Your task to perform on an android device: Is it going to rain today? Image 0: 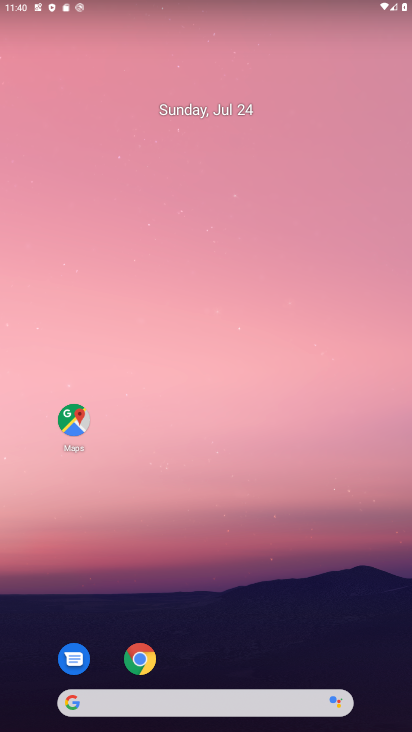
Step 0: click (107, 704)
Your task to perform on an android device: Is it going to rain today? Image 1: 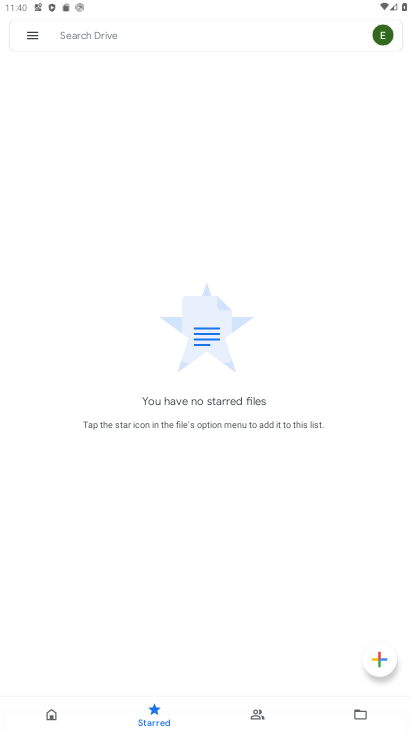
Step 1: press home button
Your task to perform on an android device: Is it going to rain today? Image 2: 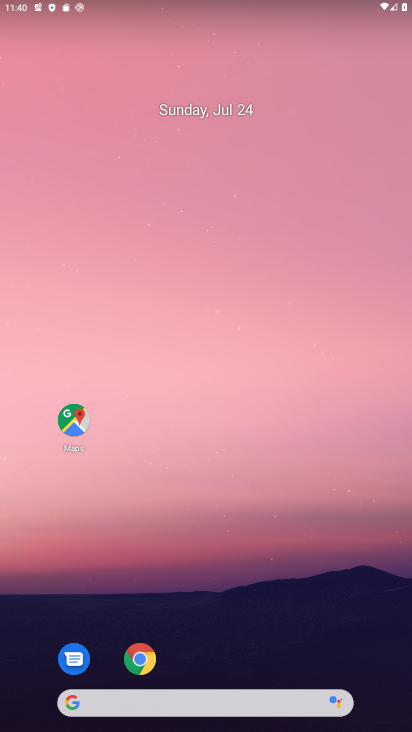
Step 2: click (138, 702)
Your task to perform on an android device: Is it going to rain today? Image 3: 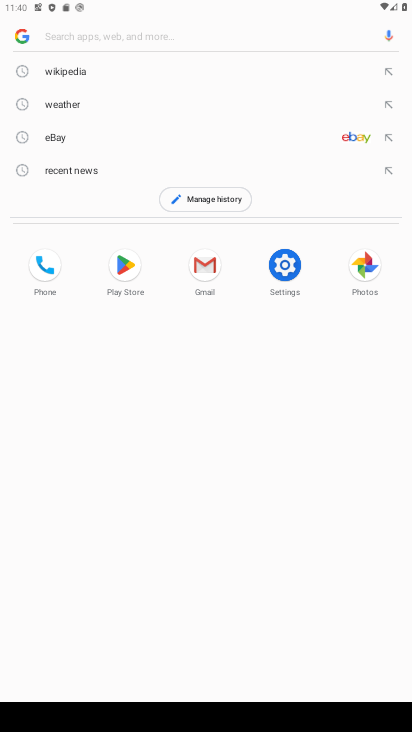
Step 3: type "Is it going to rain today?"
Your task to perform on an android device: Is it going to rain today? Image 4: 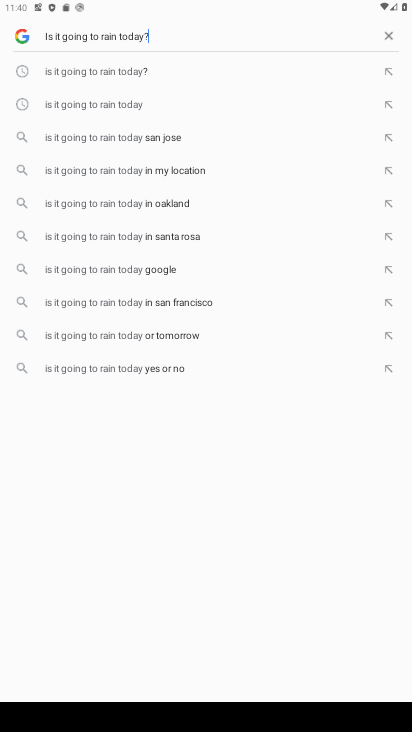
Step 4: type ""
Your task to perform on an android device: Is it going to rain today? Image 5: 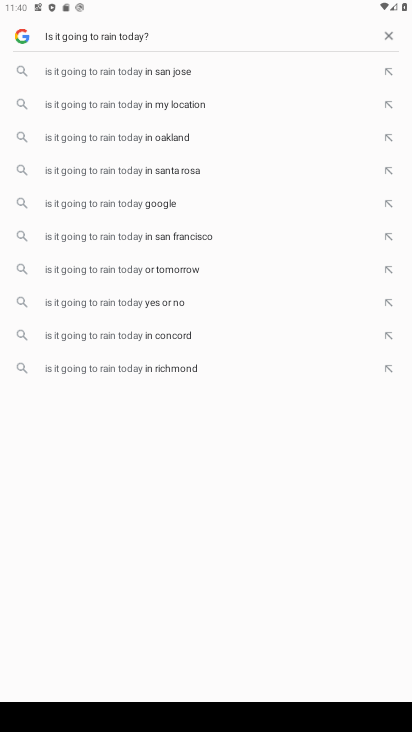
Step 5: type ""
Your task to perform on an android device: Is it going to rain today? Image 6: 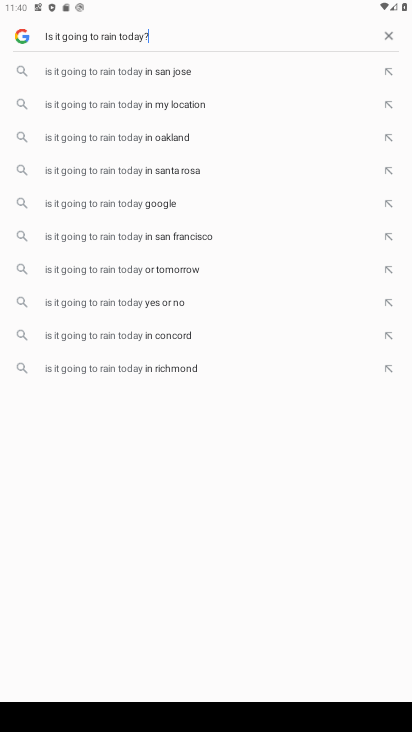
Step 6: type ""
Your task to perform on an android device: Is it going to rain today? Image 7: 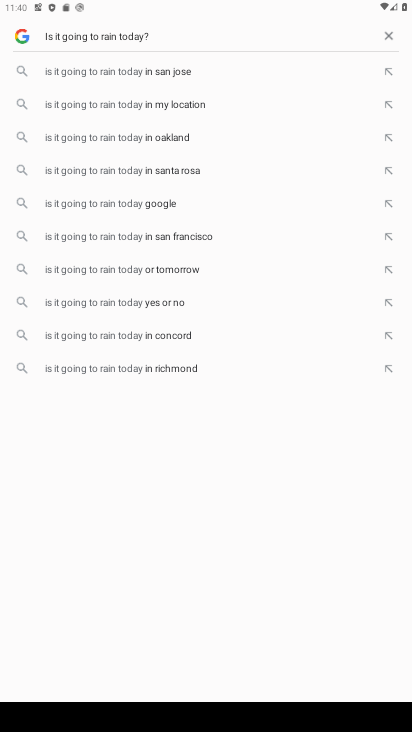
Step 7: type ""
Your task to perform on an android device: Is it going to rain today? Image 8: 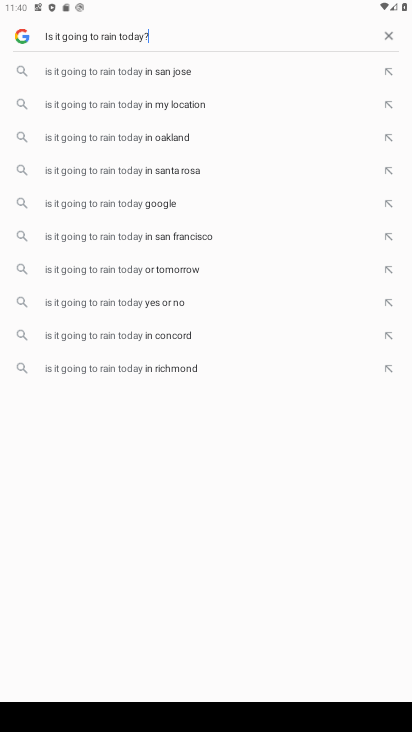
Step 8: task complete